Your task to perform on an android device: create a new album in the google photos Image 0: 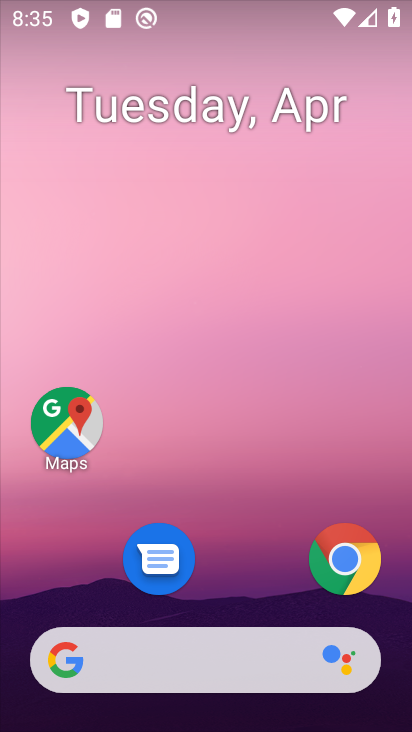
Step 0: drag from (244, 697) to (266, 16)
Your task to perform on an android device: create a new album in the google photos Image 1: 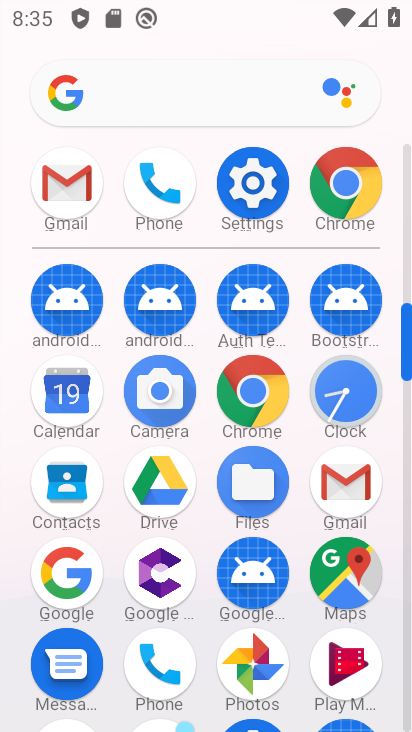
Step 1: click (255, 656)
Your task to perform on an android device: create a new album in the google photos Image 2: 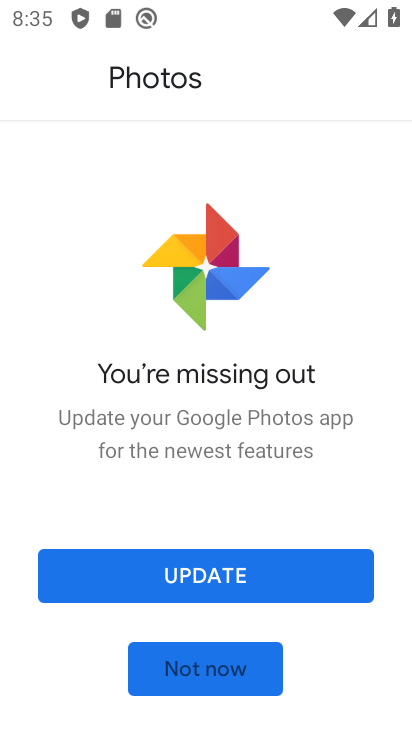
Step 2: click (237, 580)
Your task to perform on an android device: create a new album in the google photos Image 3: 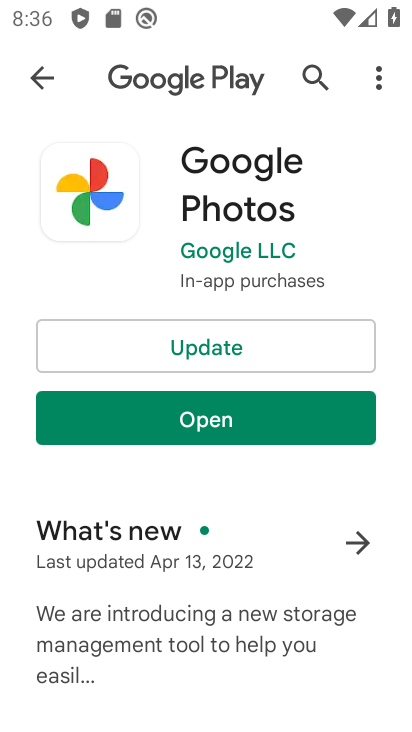
Step 3: click (226, 417)
Your task to perform on an android device: create a new album in the google photos Image 4: 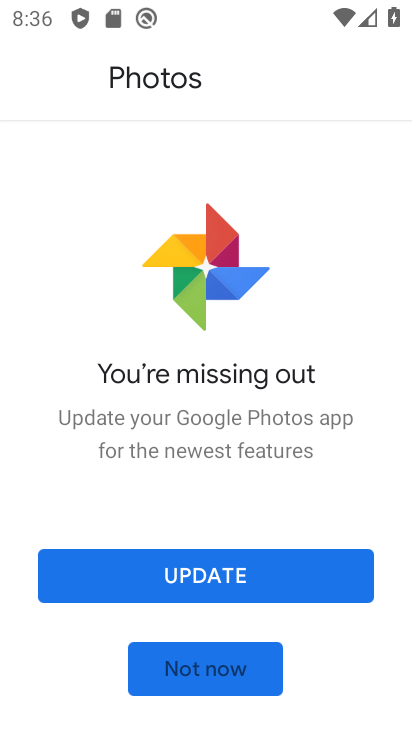
Step 4: click (214, 560)
Your task to perform on an android device: create a new album in the google photos Image 5: 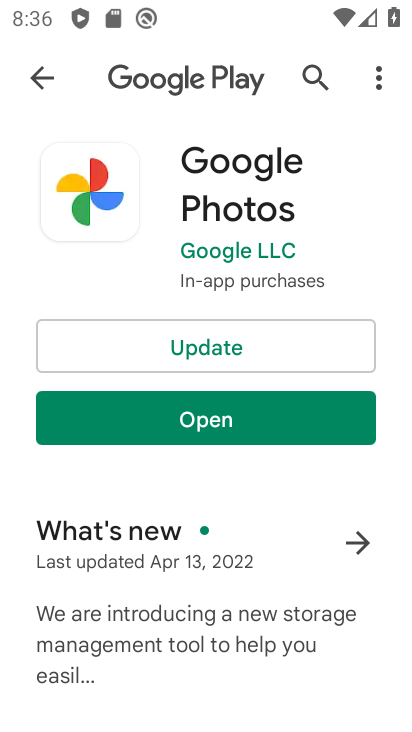
Step 5: click (215, 339)
Your task to perform on an android device: create a new album in the google photos Image 6: 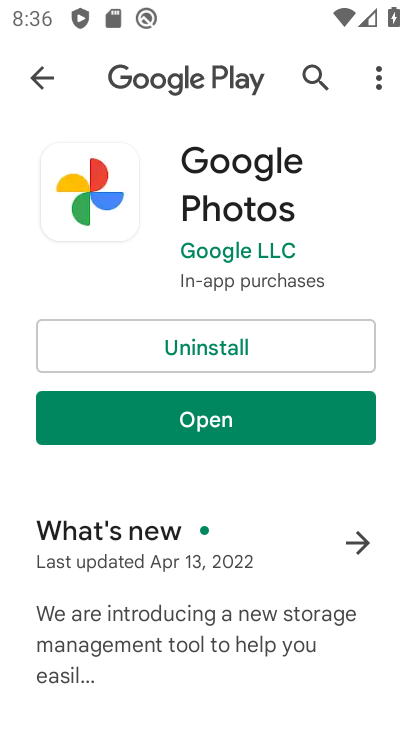
Step 6: click (206, 415)
Your task to perform on an android device: create a new album in the google photos Image 7: 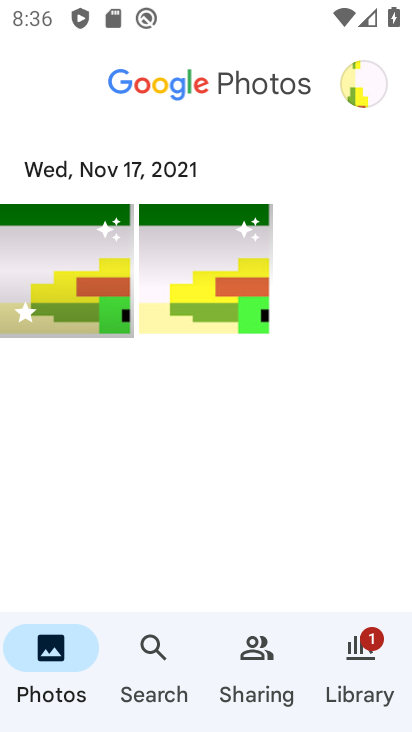
Step 7: click (242, 236)
Your task to perform on an android device: create a new album in the google photos Image 8: 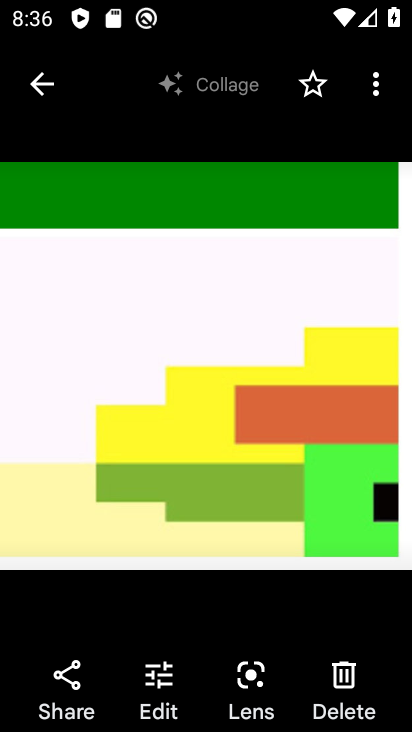
Step 8: click (384, 88)
Your task to perform on an android device: create a new album in the google photos Image 9: 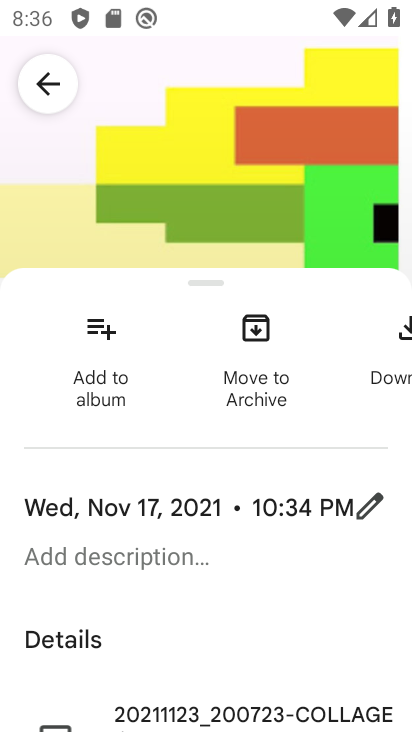
Step 9: click (95, 369)
Your task to perform on an android device: create a new album in the google photos Image 10: 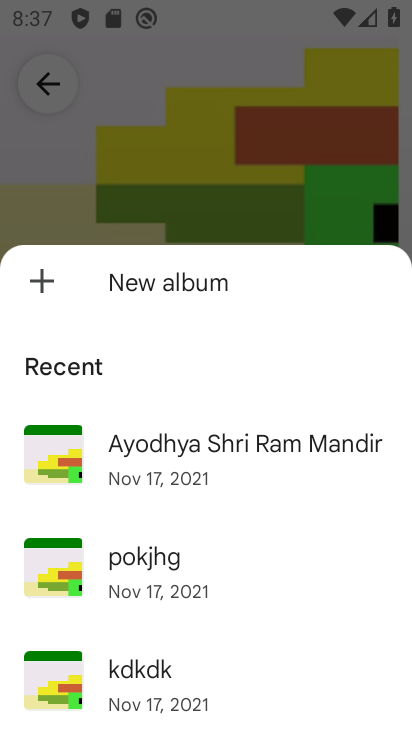
Step 10: click (151, 293)
Your task to perform on an android device: create a new album in the google photos Image 11: 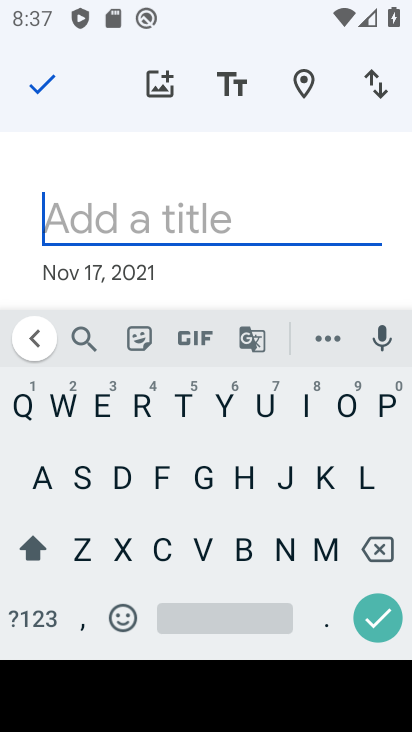
Step 11: click (142, 406)
Your task to perform on an android device: create a new album in the google photos Image 12: 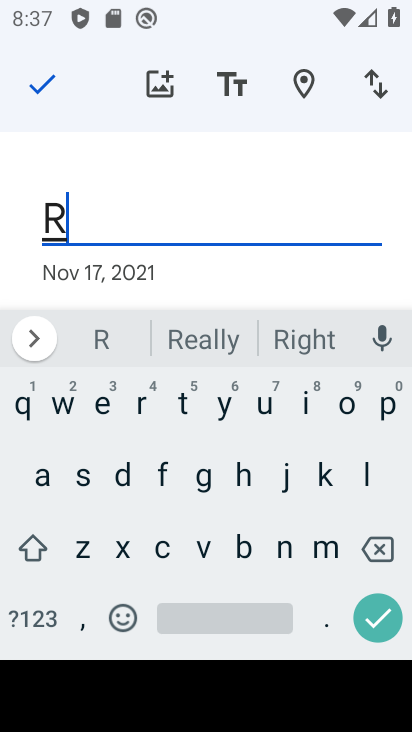
Step 12: click (124, 549)
Your task to perform on an android device: create a new album in the google photos Image 13: 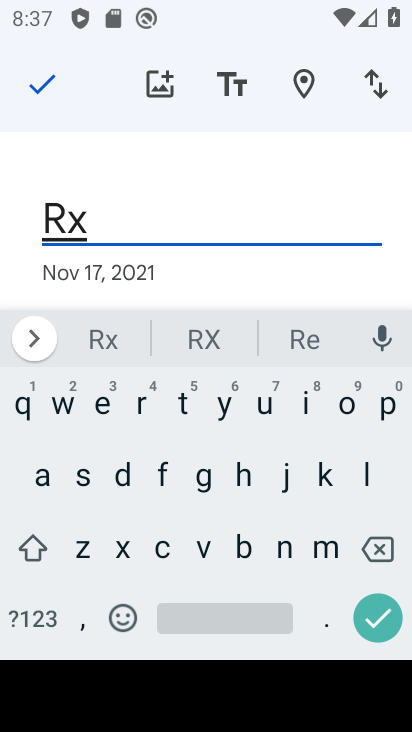
Step 13: click (120, 471)
Your task to perform on an android device: create a new album in the google photos Image 14: 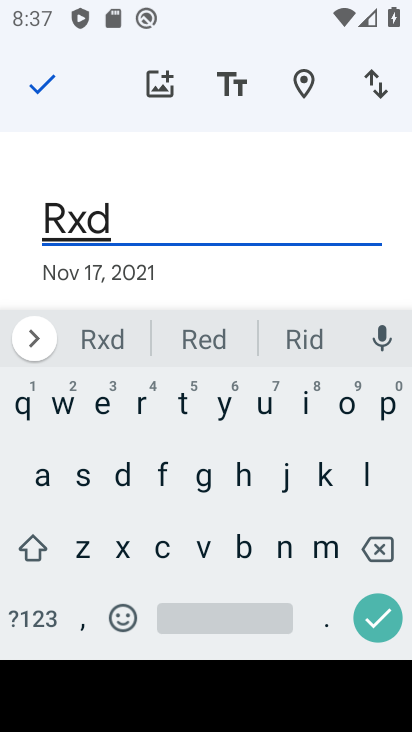
Step 14: click (50, 84)
Your task to perform on an android device: create a new album in the google photos Image 15: 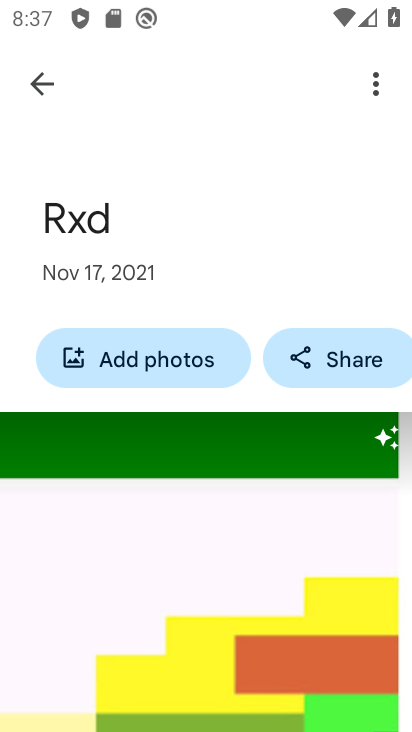
Step 15: task complete